Your task to perform on an android device: change timer sound Image 0: 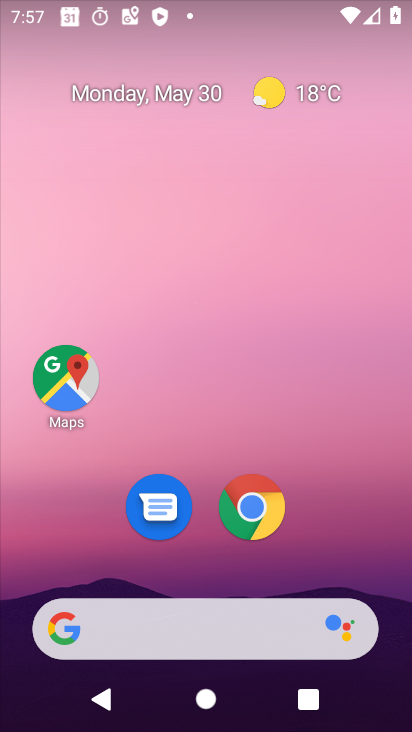
Step 0: drag from (356, 488) to (360, 108)
Your task to perform on an android device: change timer sound Image 1: 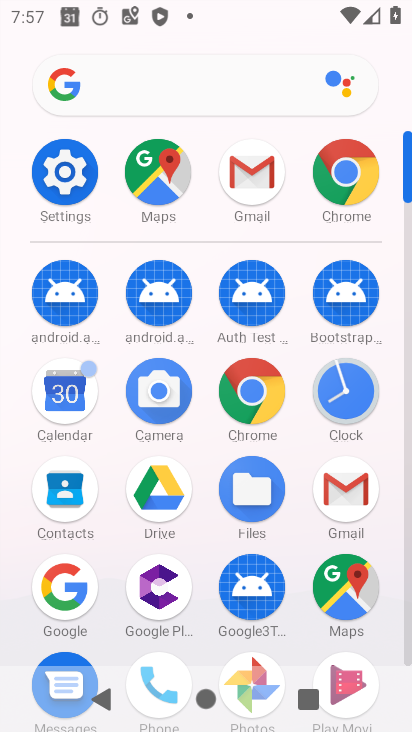
Step 1: click (57, 166)
Your task to perform on an android device: change timer sound Image 2: 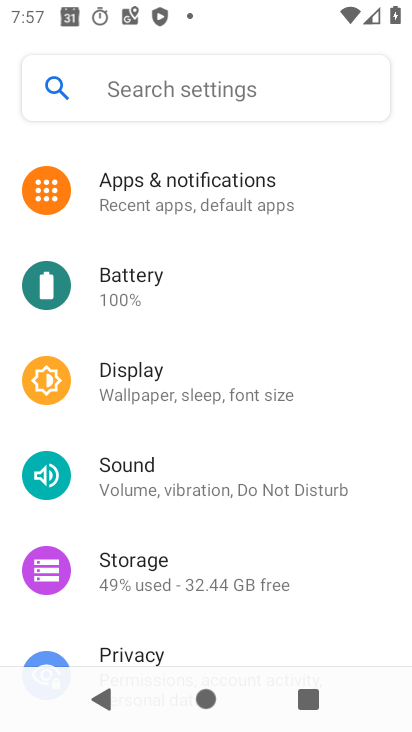
Step 2: drag from (283, 556) to (294, 232)
Your task to perform on an android device: change timer sound Image 3: 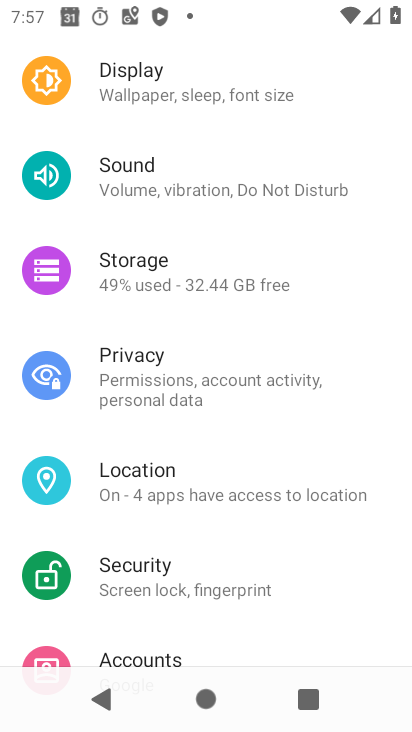
Step 3: drag from (321, 554) to (337, 235)
Your task to perform on an android device: change timer sound Image 4: 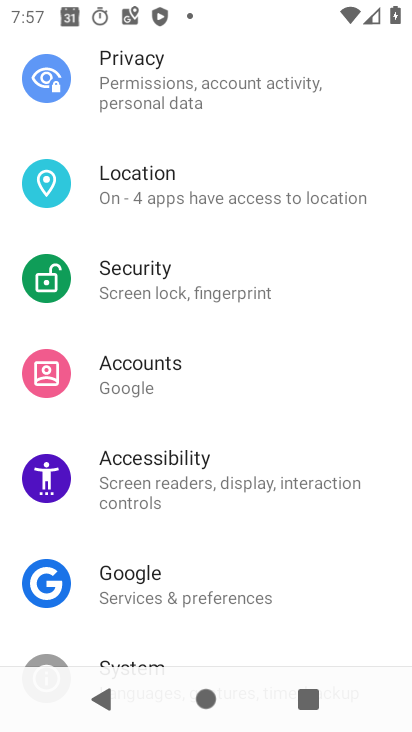
Step 4: press home button
Your task to perform on an android device: change timer sound Image 5: 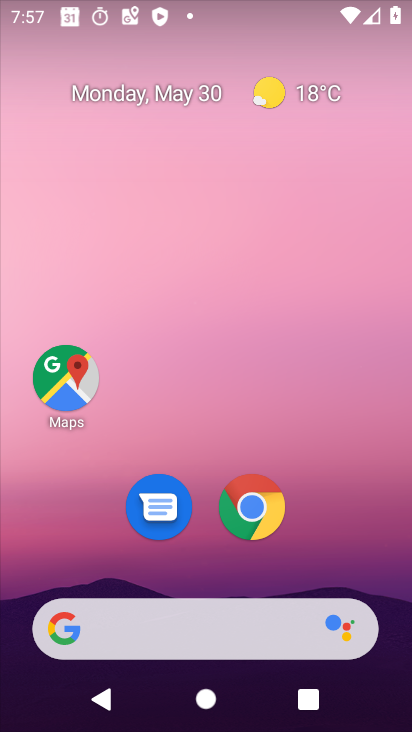
Step 5: drag from (346, 553) to (288, 114)
Your task to perform on an android device: change timer sound Image 6: 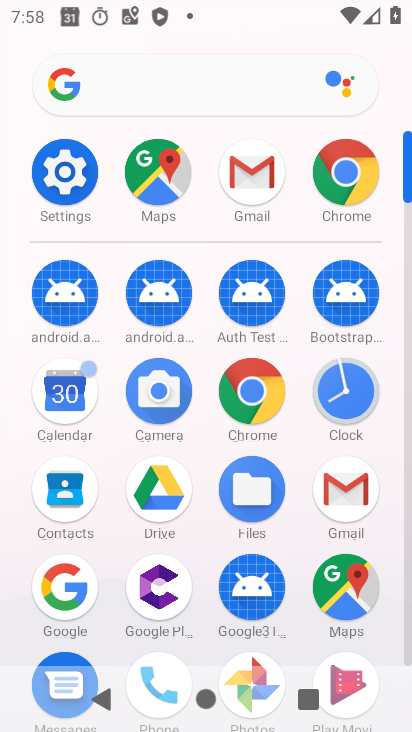
Step 6: click (334, 353)
Your task to perform on an android device: change timer sound Image 7: 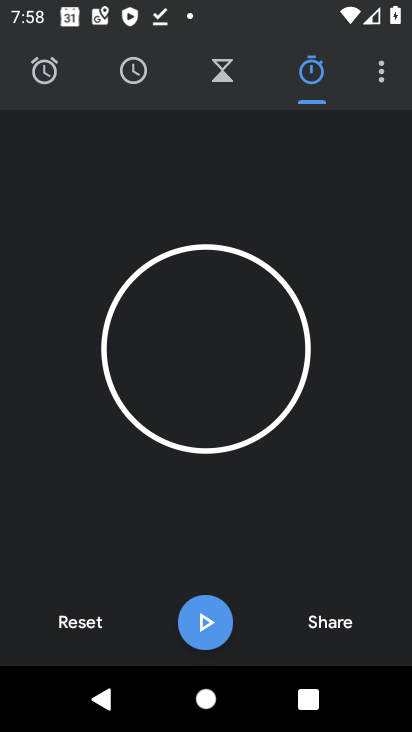
Step 7: click (375, 75)
Your task to perform on an android device: change timer sound Image 8: 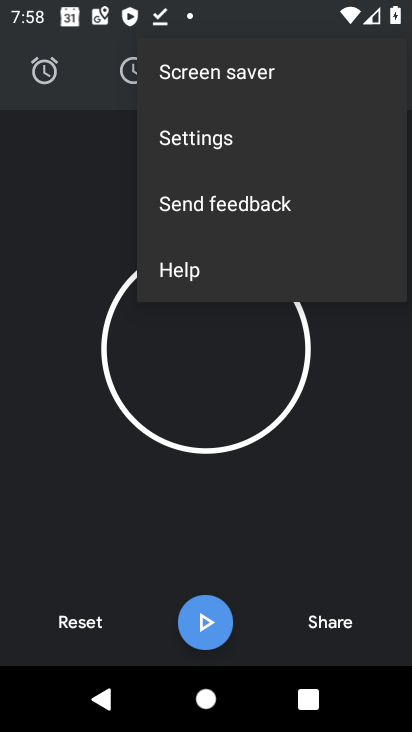
Step 8: click (255, 131)
Your task to perform on an android device: change timer sound Image 9: 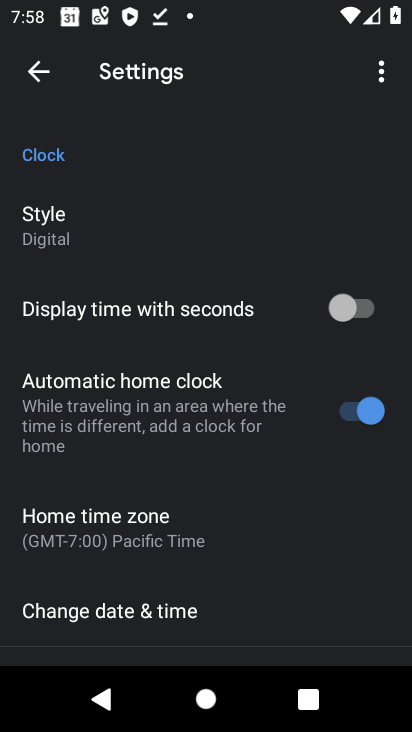
Step 9: drag from (279, 553) to (252, 242)
Your task to perform on an android device: change timer sound Image 10: 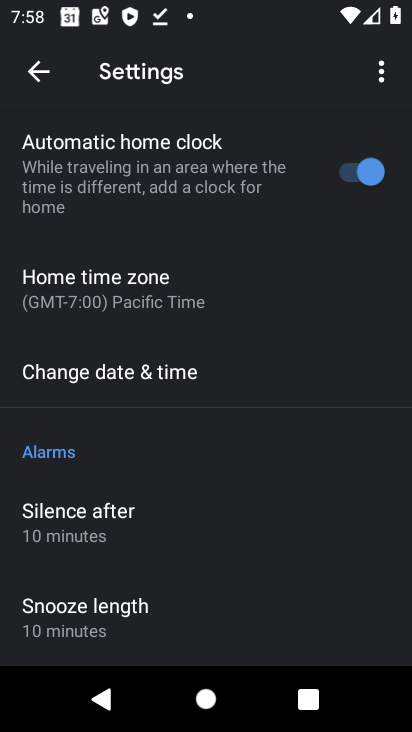
Step 10: drag from (254, 550) to (300, 166)
Your task to perform on an android device: change timer sound Image 11: 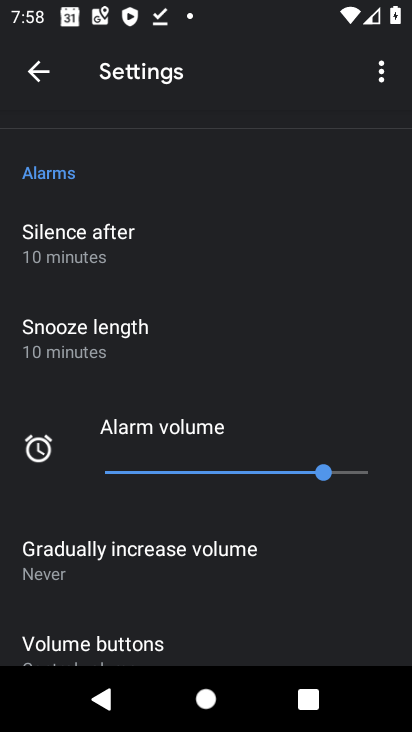
Step 11: drag from (280, 468) to (276, 288)
Your task to perform on an android device: change timer sound Image 12: 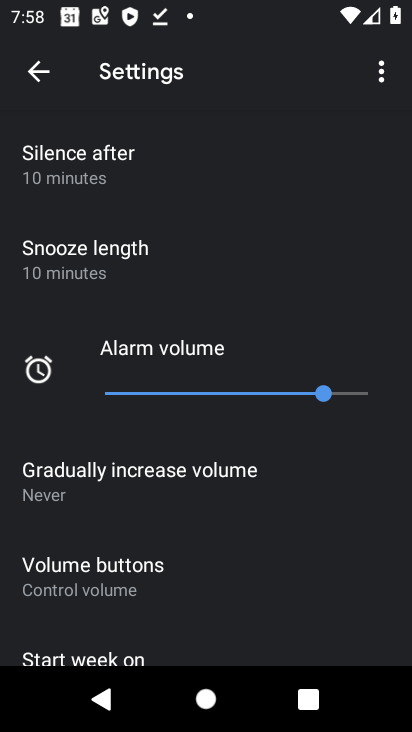
Step 12: drag from (305, 532) to (318, 217)
Your task to perform on an android device: change timer sound Image 13: 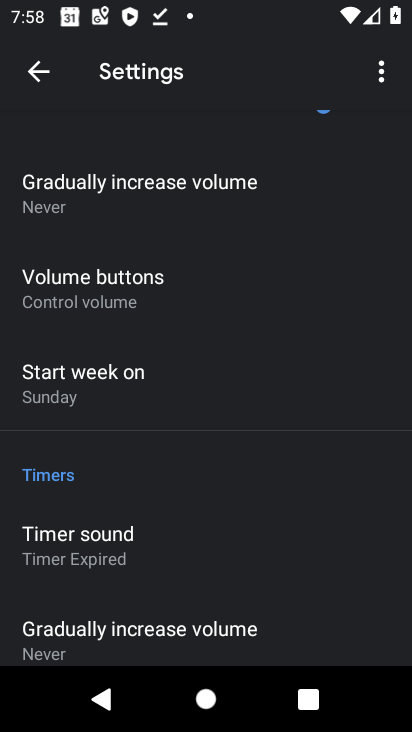
Step 13: click (139, 551)
Your task to perform on an android device: change timer sound Image 14: 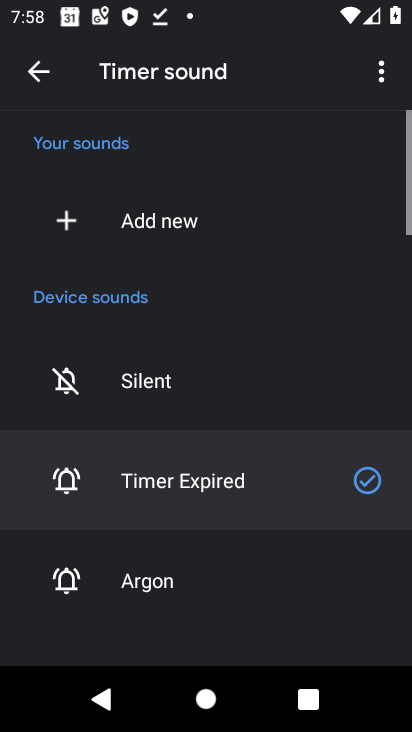
Step 14: click (231, 577)
Your task to perform on an android device: change timer sound Image 15: 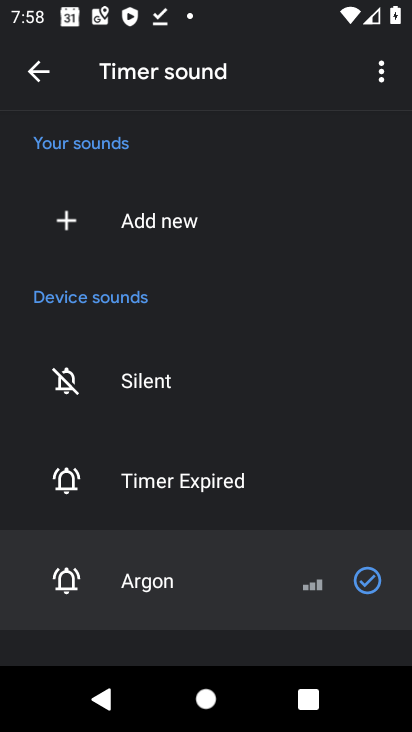
Step 15: task complete